Your task to perform on an android device: open a new tab in the chrome app Image 0: 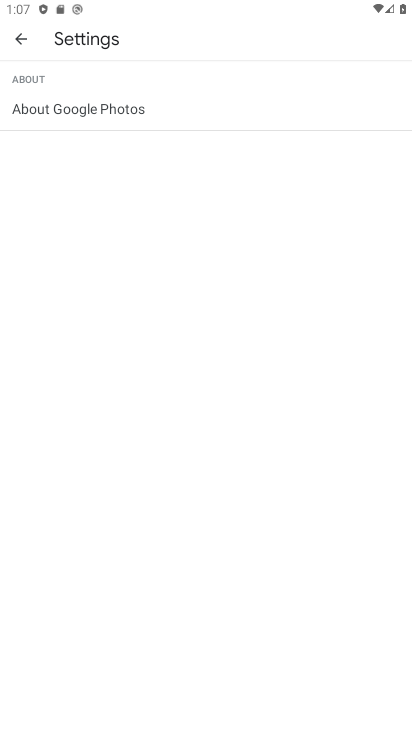
Step 0: press home button
Your task to perform on an android device: open a new tab in the chrome app Image 1: 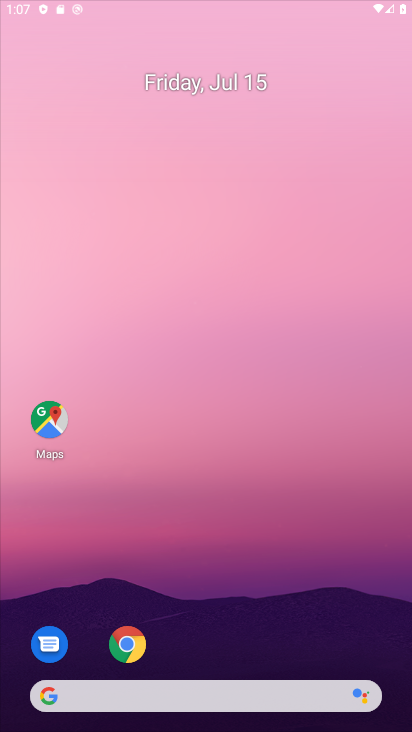
Step 1: drag from (378, 653) to (212, 8)
Your task to perform on an android device: open a new tab in the chrome app Image 2: 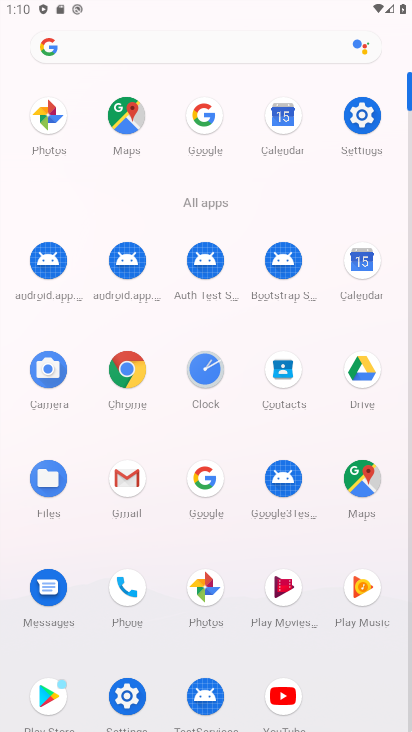
Step 2: click (120, 370)
Your task to perform on an android device: open a new tab in the chrome app Image 3: 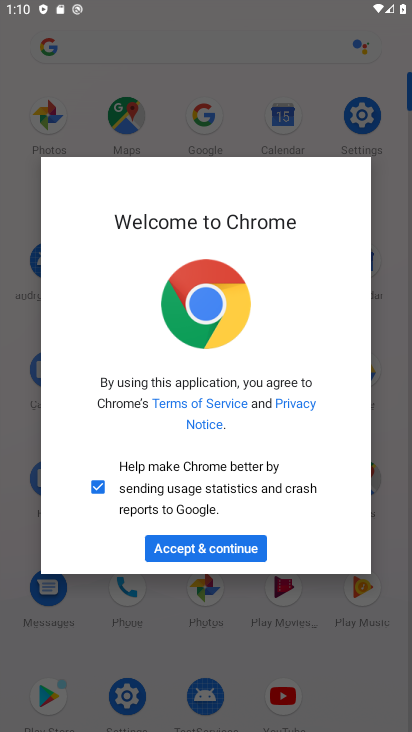
Step 3: click (230, 541)
Your task to perform on an android device: open a new tab in the chrome app Image 4: 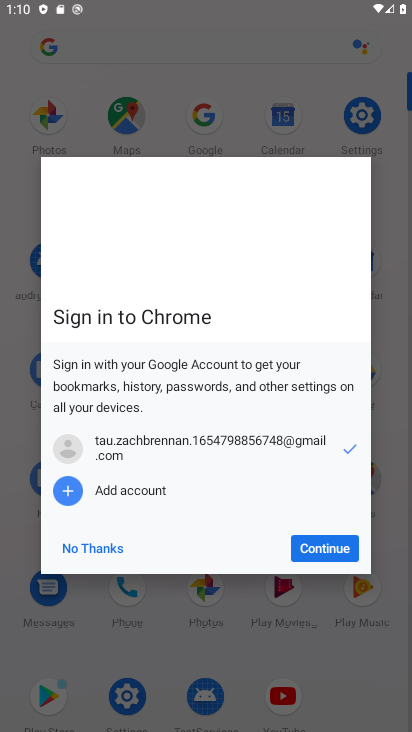
Step 4: click (341, 544)
Your task to perform on an android device: open a new tab in the chrome app Image 5: 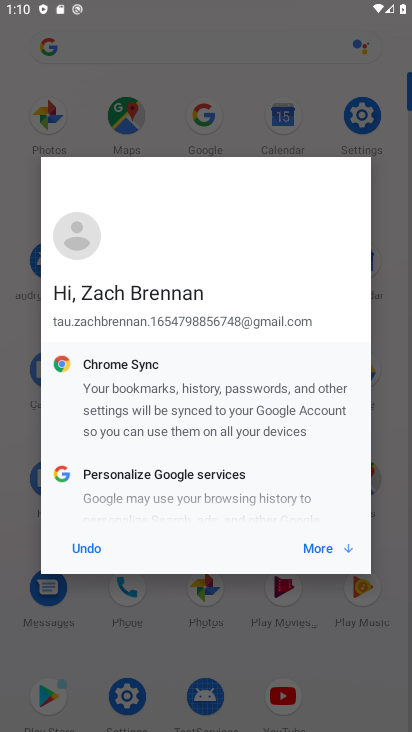
Step 5: click (327, 545)
Your task to perform on an android device: open a new tab in the chrome app Image 6: 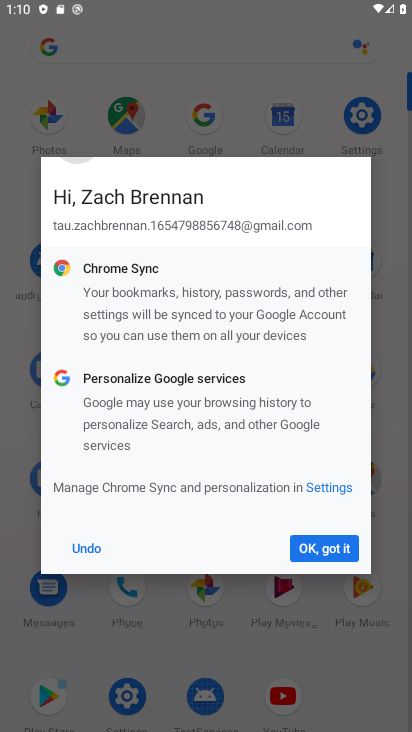
Step 6: click (342, 554)
Your task to perform on an android device: open a new tab in the chrome app Image 7: 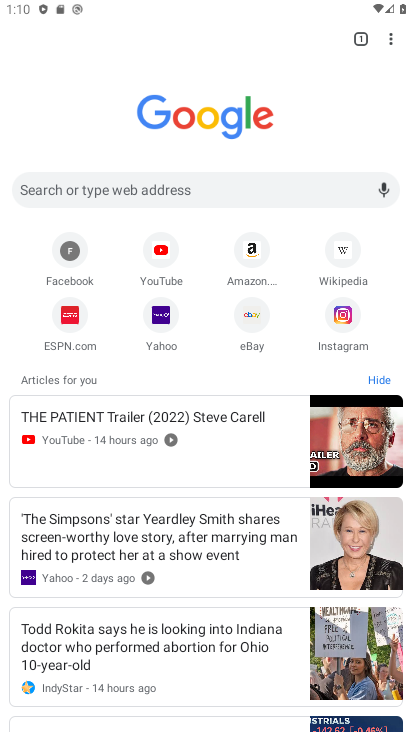
Step 7: click (390, 38)
Your task to perform on an android device: open a new tab in the chrome app Image 8: 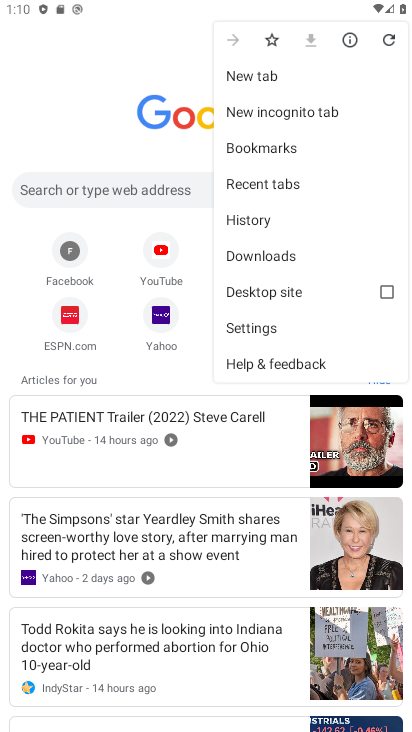
Step 8: click (275, 72)
Your task to perform on an android device: open a new tab in the chrome app Image 9: 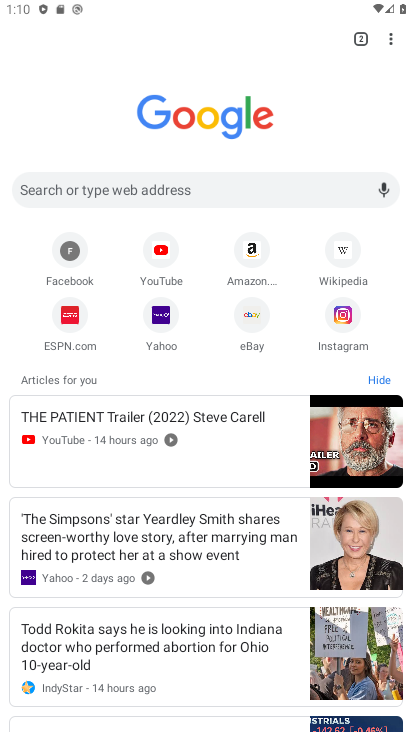
Step 9: task complete